Your task to perform on an android device: turn off priority inbox in the gmail app Image 0: 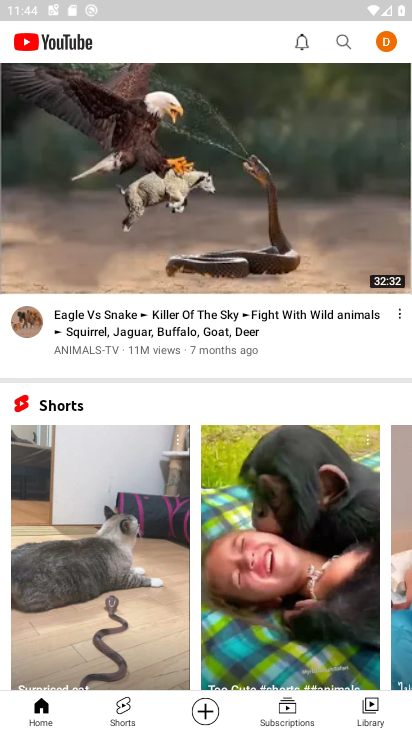
Step 0: press home button
Your task to perform on an android device: turn off priority inbox in the gmail app Image 1: 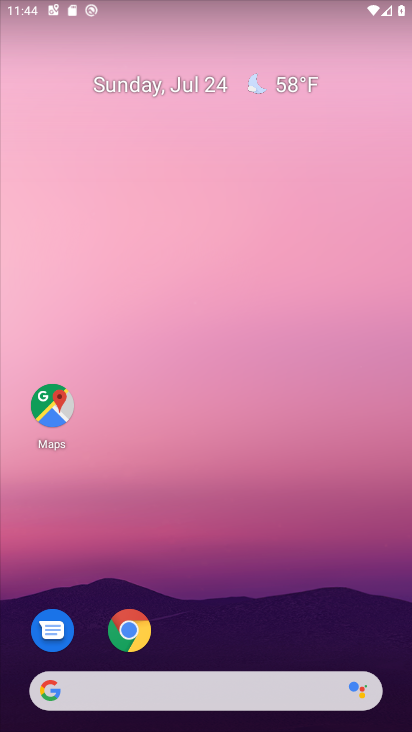
Step 1: drag from (207, 531) to (210, 232)
Your task to perform on an android device: turn off priority inbox in the gmail app Image 2: 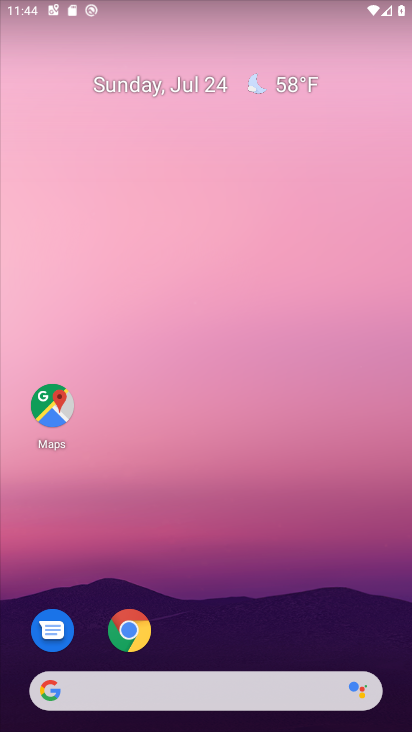
Step 2: drag from (210, 497) to (211, 180)
Your task to perform on an android device: turn off priority inbox in the gmail app Image 3: 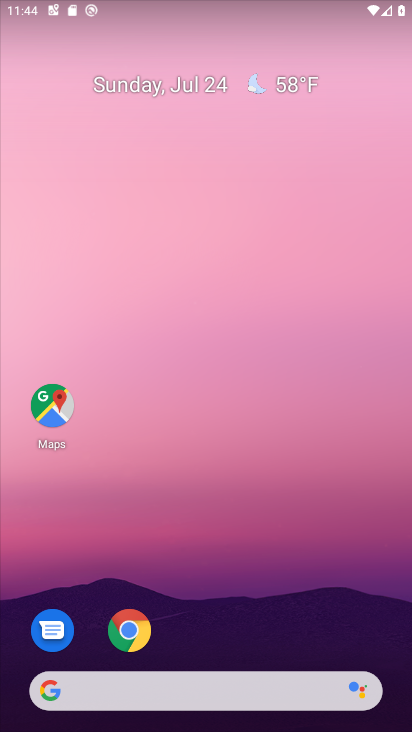
Step 3: drag from (198, 604) to (215, 253)
Your task to perform on an android device: turn off priority inbox in the gmail app Image 4: 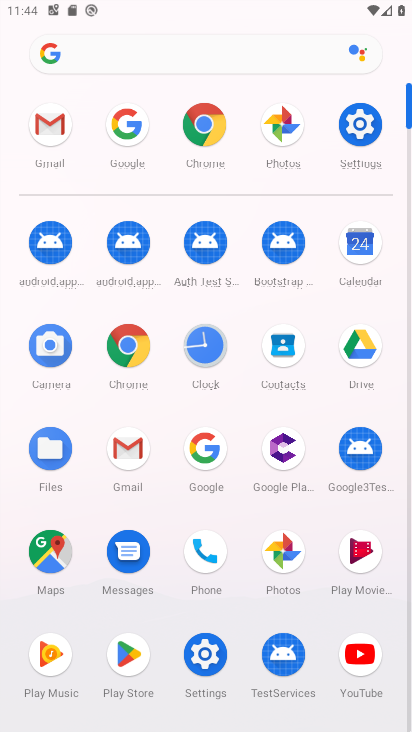
Step 4: click (125, 472)
Your task to perform on an android device: turn off priority inbox in the gmail app Image 5: 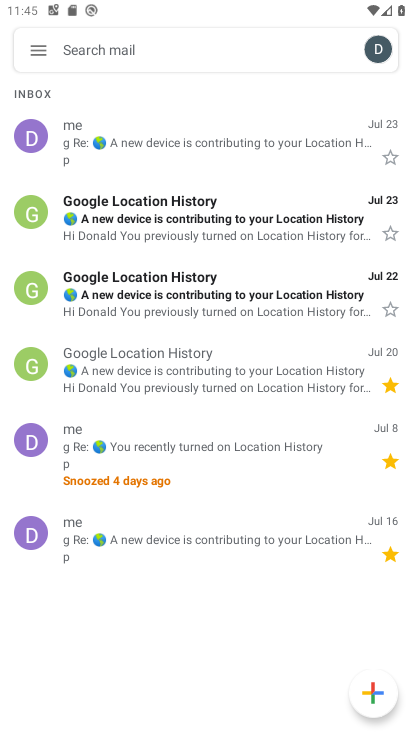
Step 5: click (44, 48)
Your task to perform on an android device: turn off priority inbox in the gmail app Image 6: 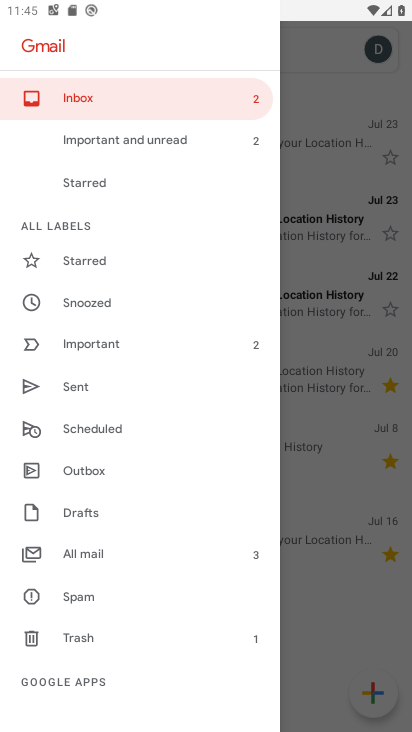
Step 6: drag from (147, 427) to (168, 264)
Your task to perform on an android device: turn off priority inbox in the gmail app Image 7: 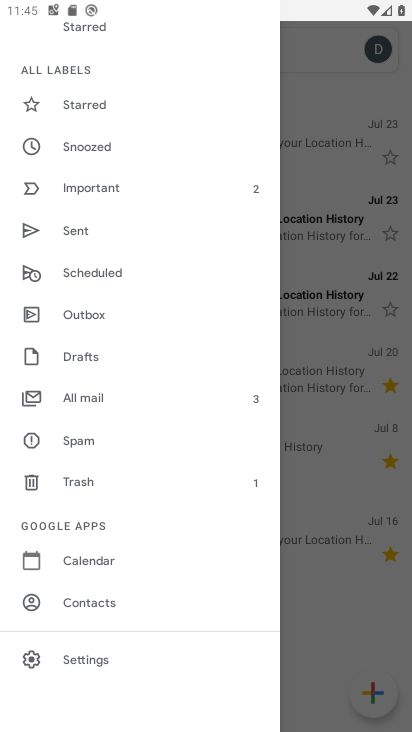
Step 7: click (58, 660)
Your task to perform on an android device: turn off priority inbox in the gmail app Image 8: 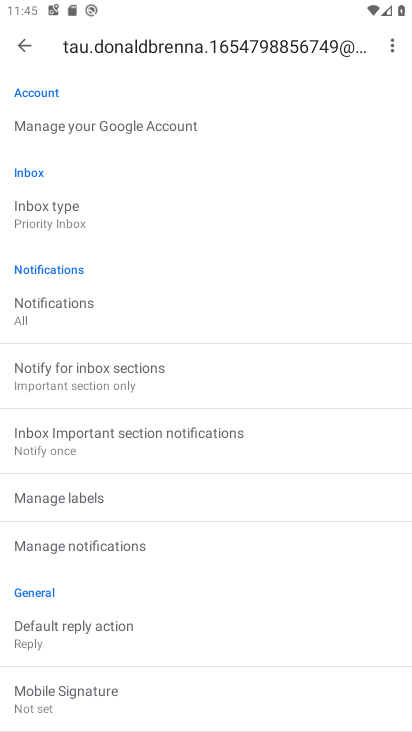
Step 8: click (68, 213)
Your task to perform on an android device: turn off priority inbox in the gmail app Image 9: 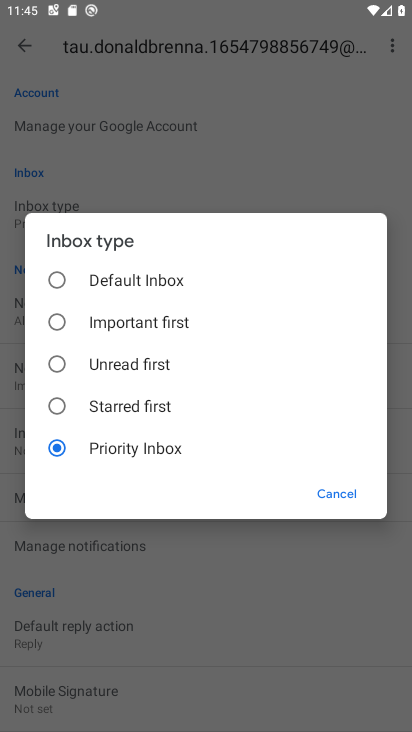
Step 9: click (57, 280)
Your task to perform on an android device: turn off priority inbox in the gmail app Image 10: 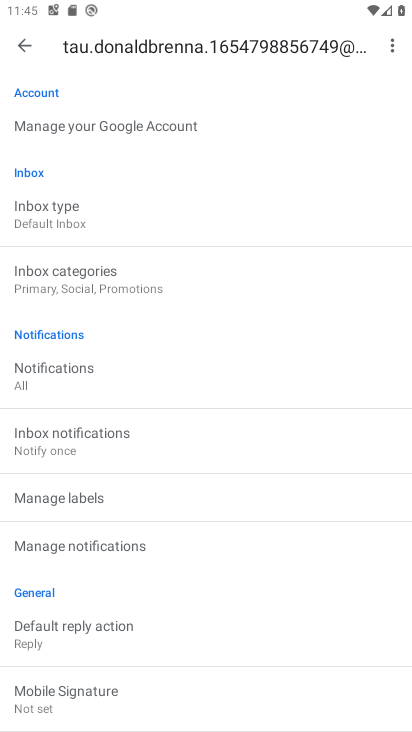
Step 10: task complete